Your task to perform on an android device: Open the map Image 0: 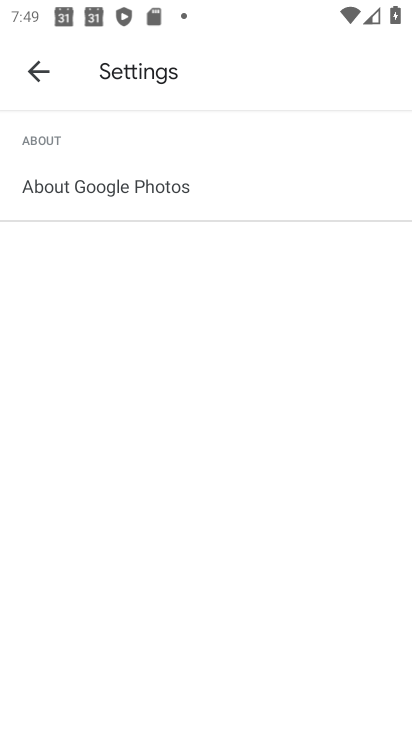
Step 0: press home button
Your task to perform on an android device: Open the map Image 1: 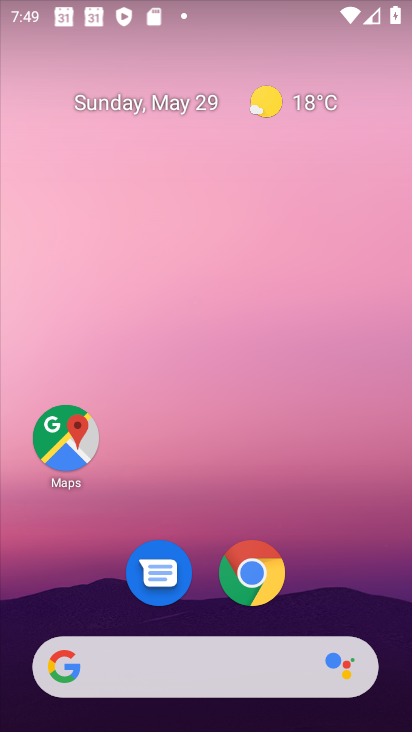
Step 1: click (84, 455)
Your task to perform on an android device: Open the map Image 2: 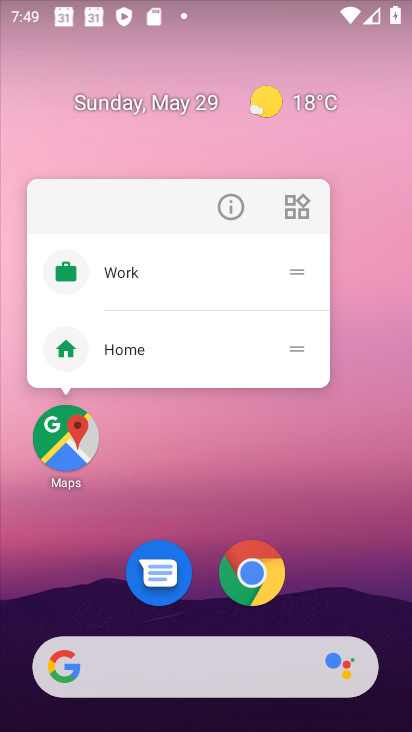
Step 2: click (76, 457)
Your task to perform on an android device: Open the map Image 3: 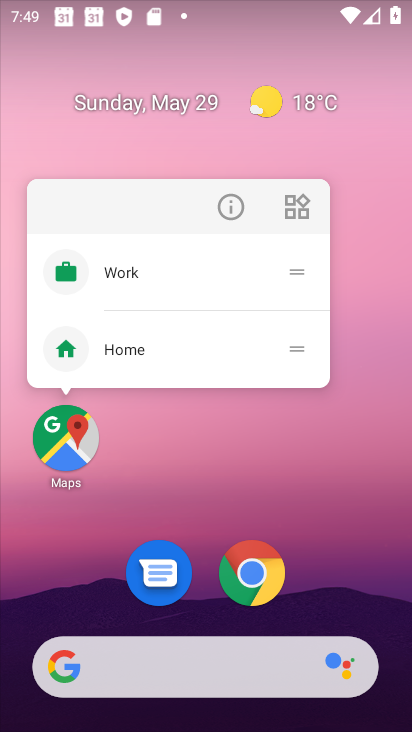
Step 3: click (58, 435)
Your task to perform on an android device: Open the map Image 4: 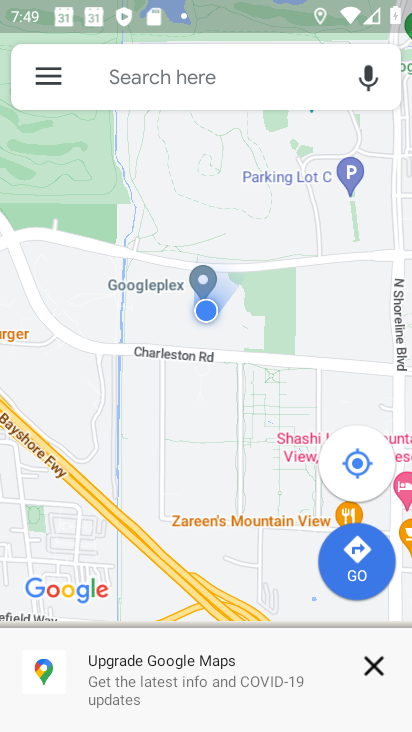
Step 4: click (366, 667)
Your task to perform on an android device: Open the map Image 5: 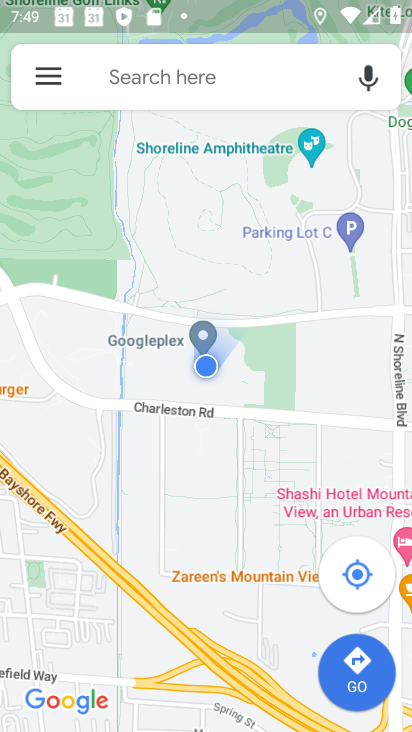
Step 5: task complete